Your task to perform on an android device: change alarm snooze length Image 0: 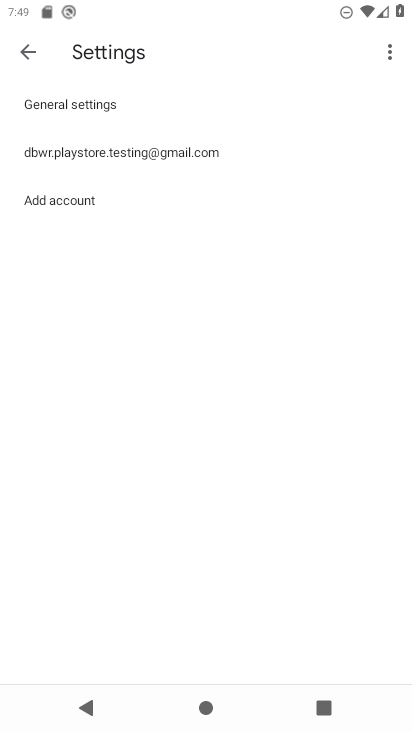
Step 0: press back button
Your task to perform on an android device: change alarm snooze length Image 1: 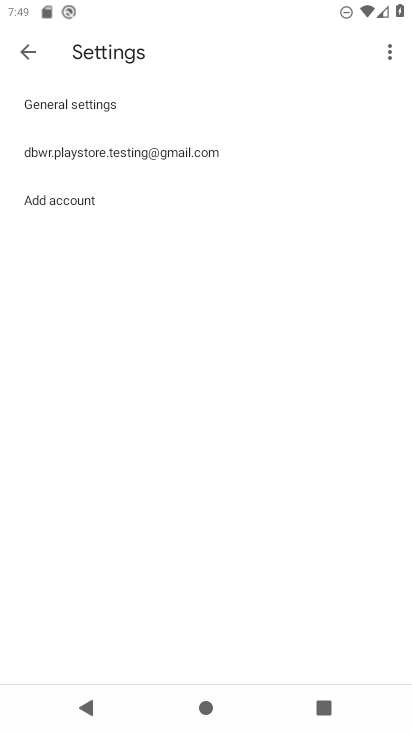
Step 1: press back button
Your task to perform on an android device: change alarm snooze length Image 2: 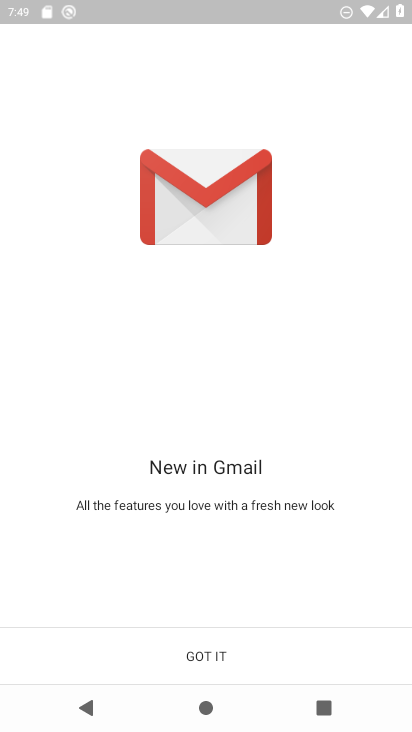
Step 2: press back button
Your task to perform on an android device: change alarm snooze length Image 3: 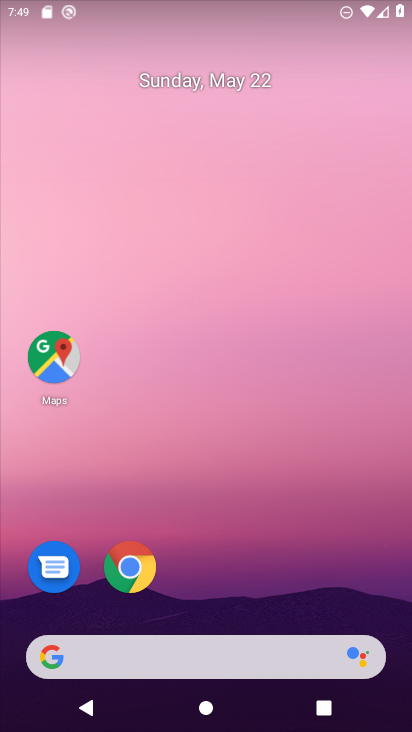
Step 3: drag from (266, 499) to (326, 51)
Your task to perform on an android device: change alarm snooze length Image 4: 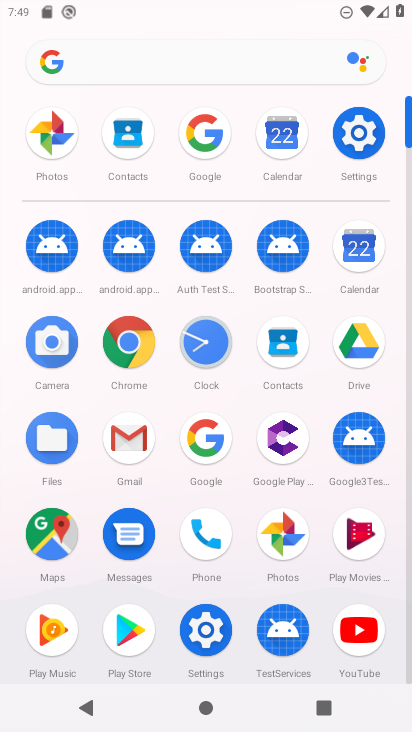
Step 4: click (222, 339)
Your task to perform on an android device: change alarm snooze length Image 5: 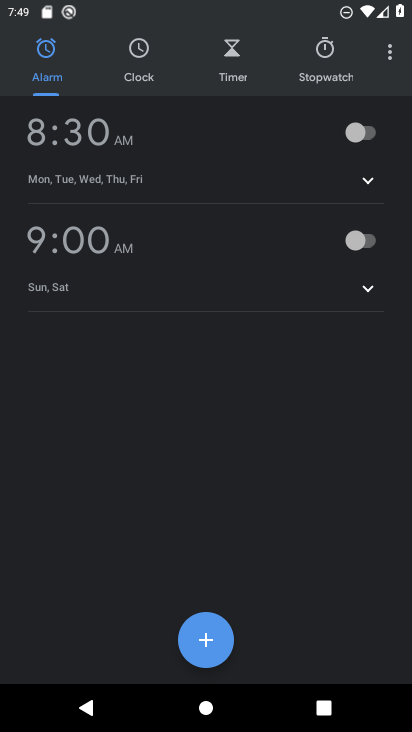
Step 5: click (393, 50)
Your task to perform on an android device: change alarm snooze length Image 6: 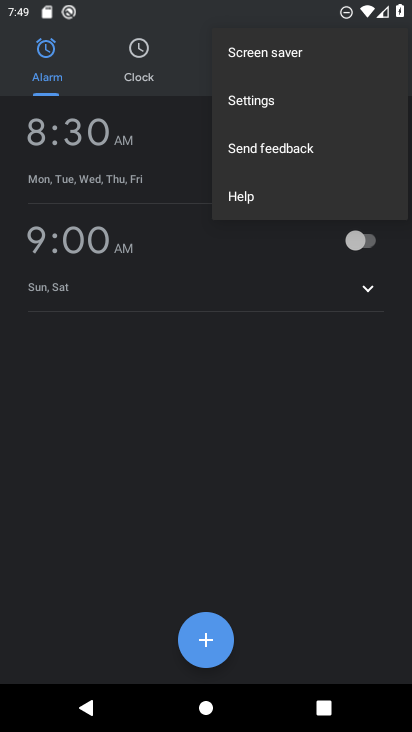
Step 6: click (289, 108)
Your task to perform on an android device: change alarm snooze length Image 7: 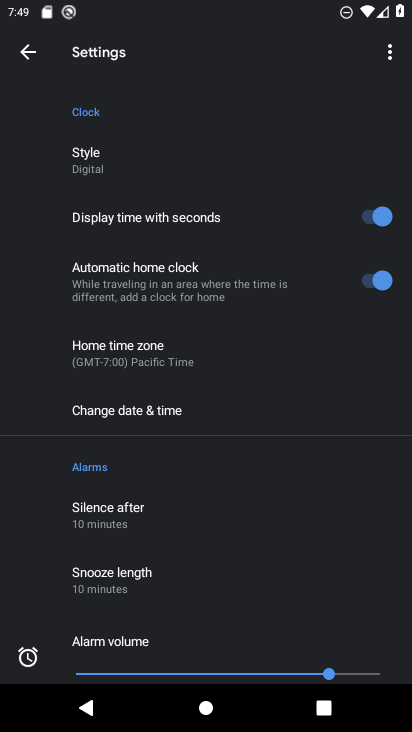
Step 7: click (109, 585)
Your task to perform on an android device: change alarm snooze length Image 8: 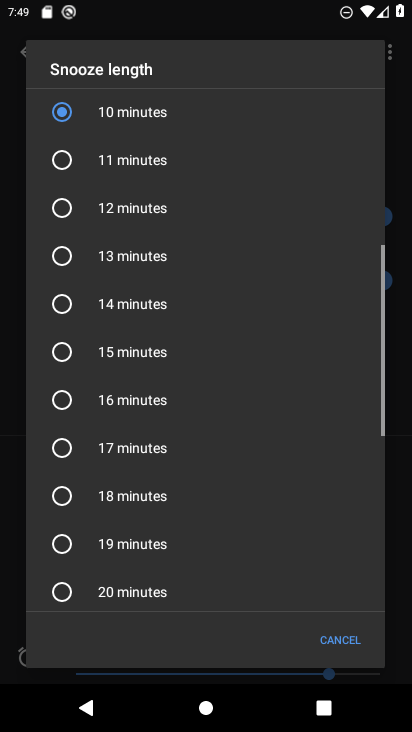
Step 8: click (67, 167)
Your task to perform on an android device: change alarm snooze length Image 9: 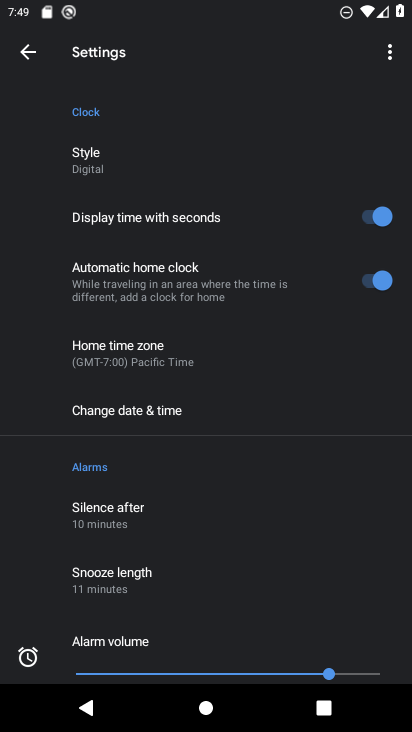
Step 9: task complete